Your task to perform on an android device: toggle priority inbox in the gmail app Image 0: 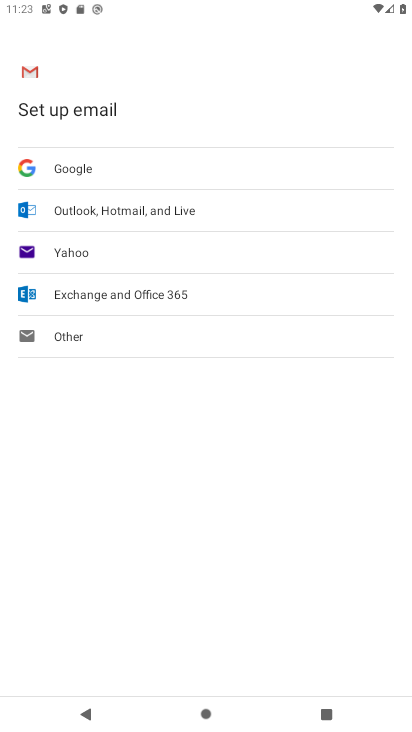
Step 0: press home button
Your task to perform on an android device: toggle priority inbox in the gmail app Image 1: 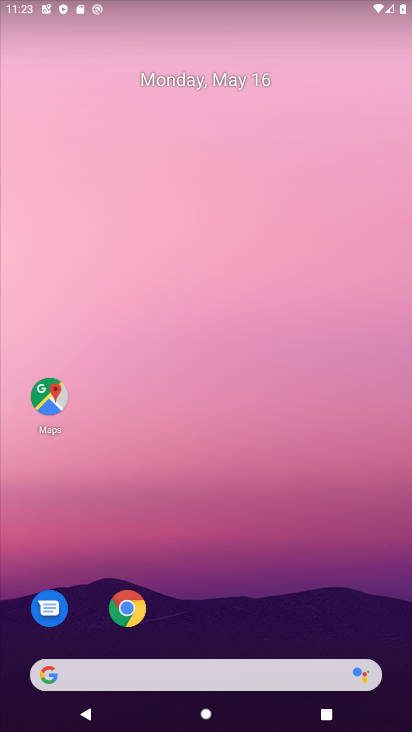
Step 1: drag from (110, 675) to (223, 269)
Your task to perform on an android device: toggle priority inbox in the gmail app Image 2: 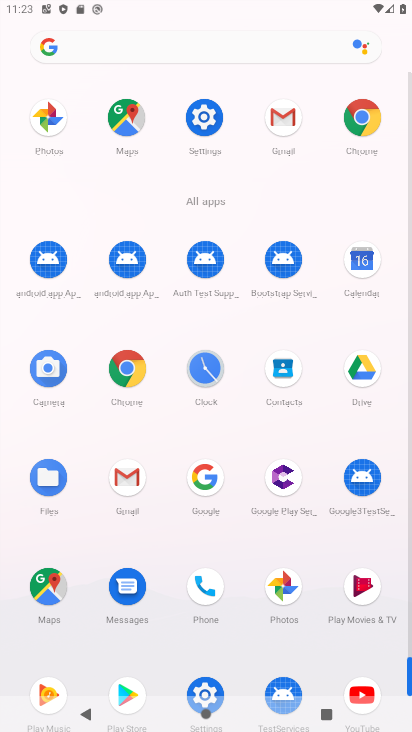
Step 2: click (296, 124)
Your task to perform on an android device: toggle priority inbox in the gmail app Image 3: 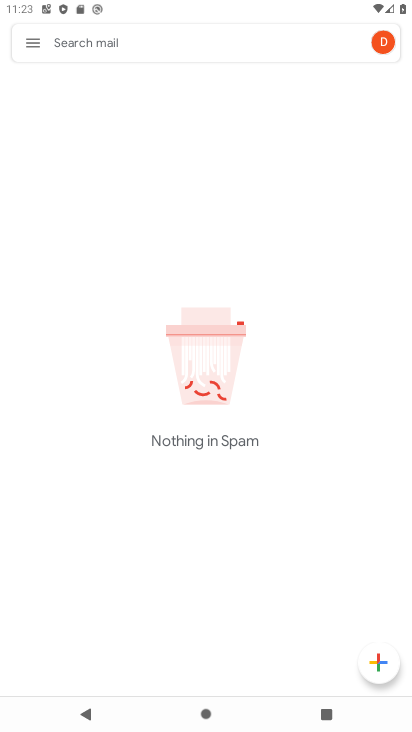
Step 3: click (28, 41)
Your task to perform on an android device: toggle priority inbox in the gmail app Image 4: 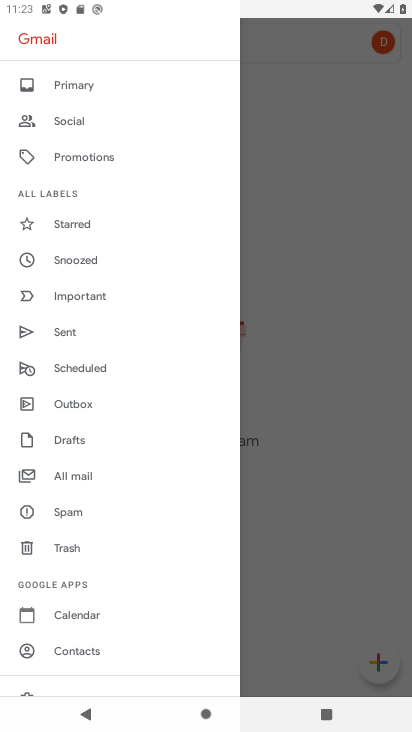
Step 4: drag from (103, 588) to (128, 124)
Your task to perform on an android device: toggle priority inbox in the gmail app Image 5: 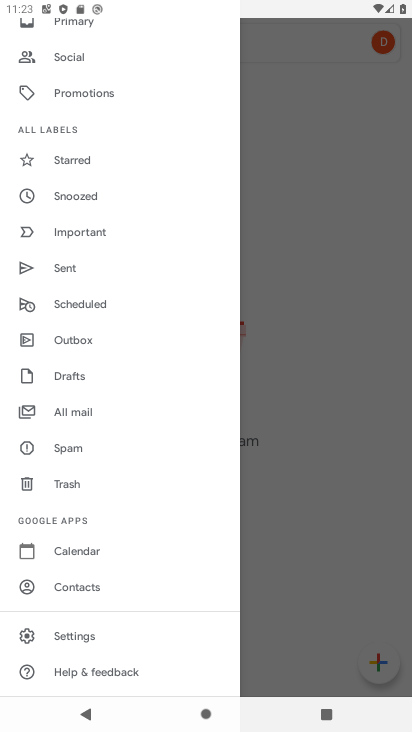
Step 5: click (70, 634)
Your task to perform on an android device: toggle priority inbox in the gmail app Image 6: 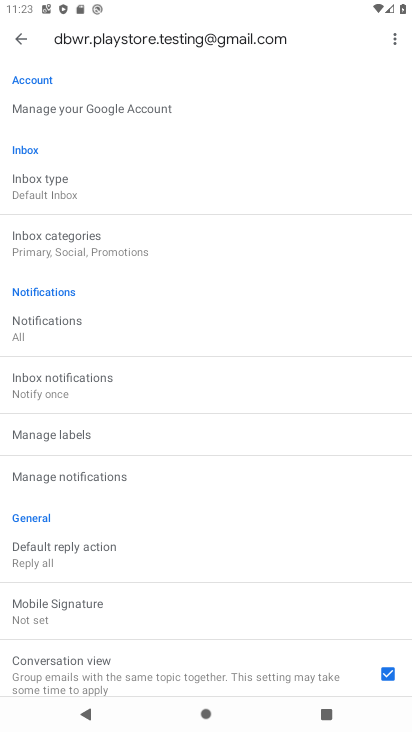
Step 6: click (40, 182)
Your task to perform on an android device: toggle priority inbox in the gmail app Image 7: 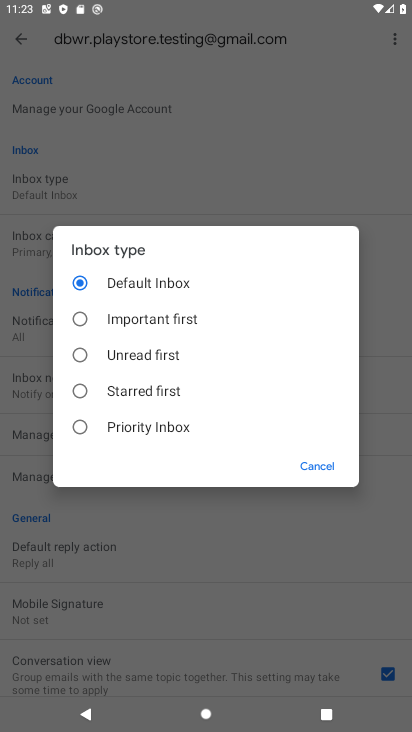
Step 7: click (79, 427)
Your task to perform on an android device: toggle priority inbox in the gmail app Image 8: 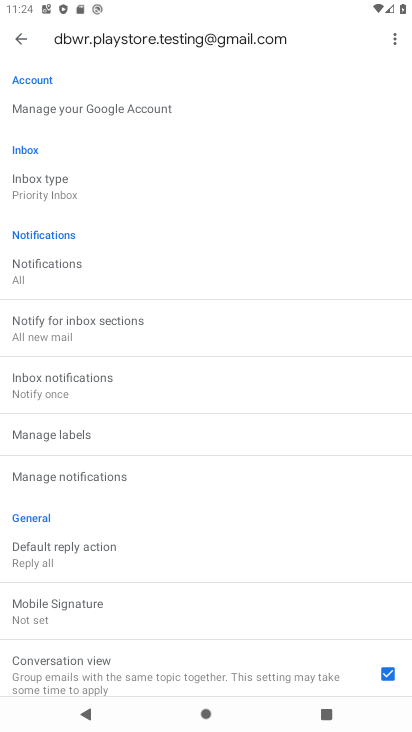
Step 8: task complete